Your task to perform on an android device: refresh tabs in the chrome app Image 0: 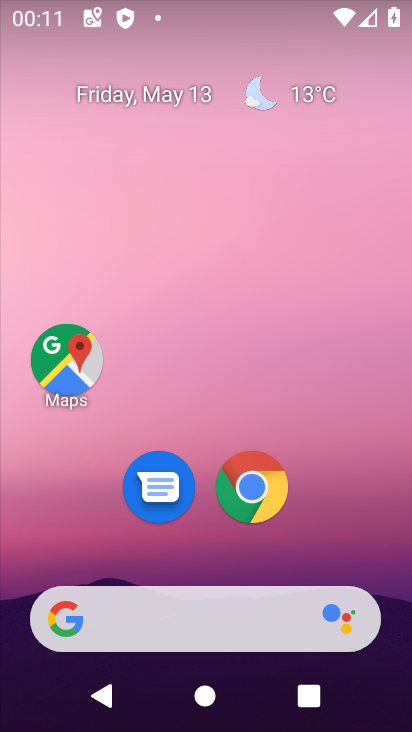
Step 0: click (250, 497)
Your task to perform on an android device: refresh tabs in the chrome app Image 1: 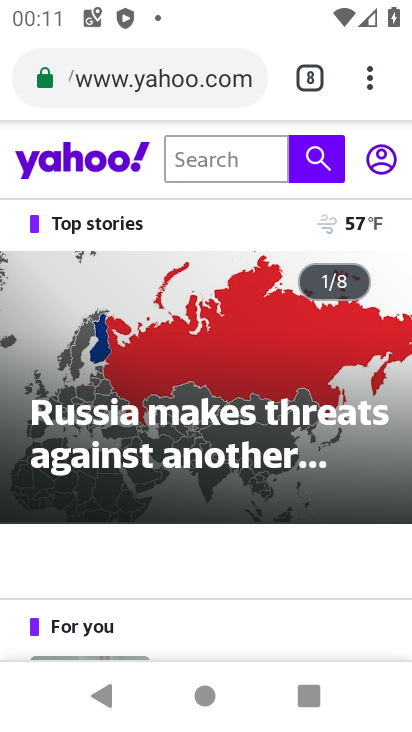
Step 1: click (381, 92)
Your task to perform on an android device: refresh tabs in the chrome app Image 2: 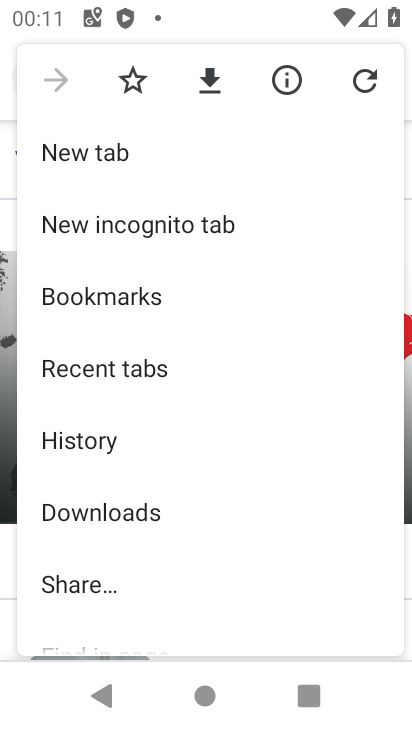
Step 2: click (363, 76)
Your task to perform on an android device: refresh tabs in the chrome app Image 3: 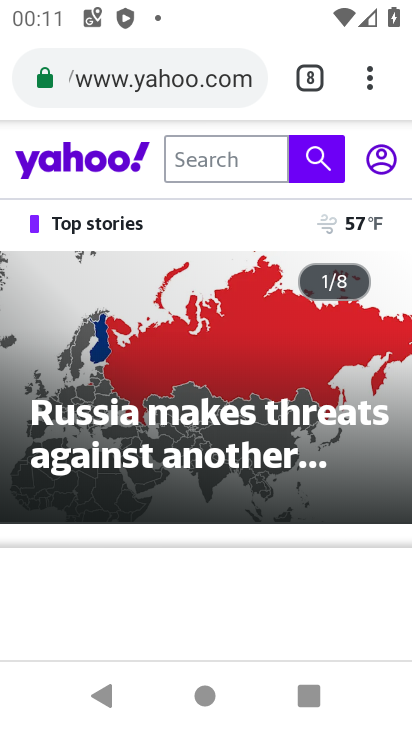
Step 3: task complete